Your task to perform on an android device: toggle translation in the chrome app Image 0: 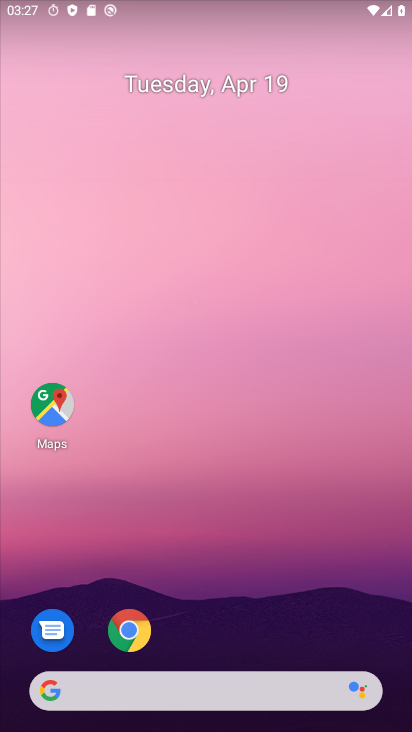
Step 0: click (127, 633)
Your task to perform on an android device: toggle translation in the chrome app Image 1: 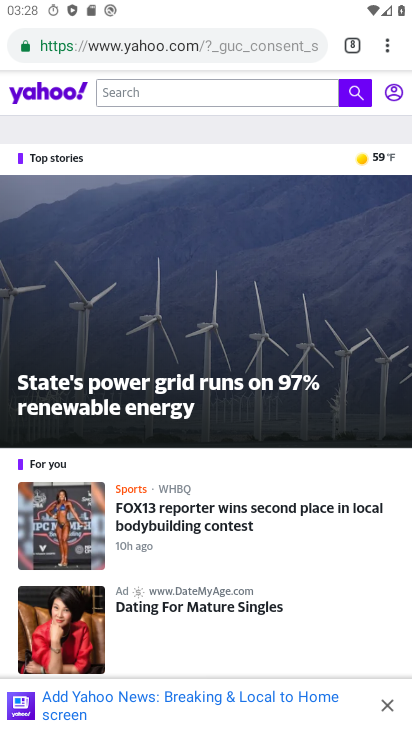
Step 1: click (389, 44)
Your task to perform on an android device: toggle translation in the chrome app Image 2: 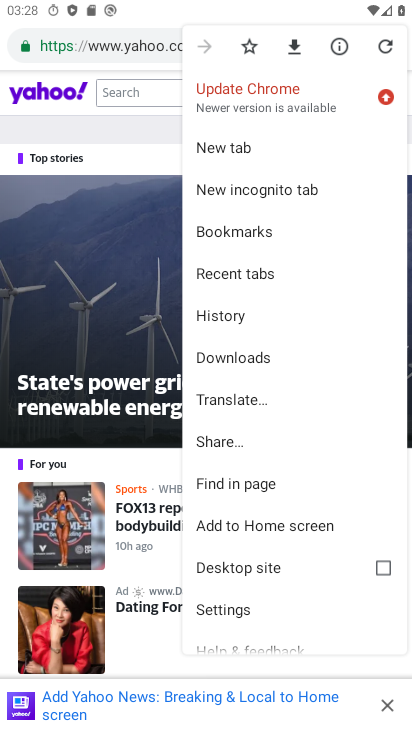
Step 2: click (235, 605)
Your task to perform on an android device: toggle translation in the chrome app Image 3: 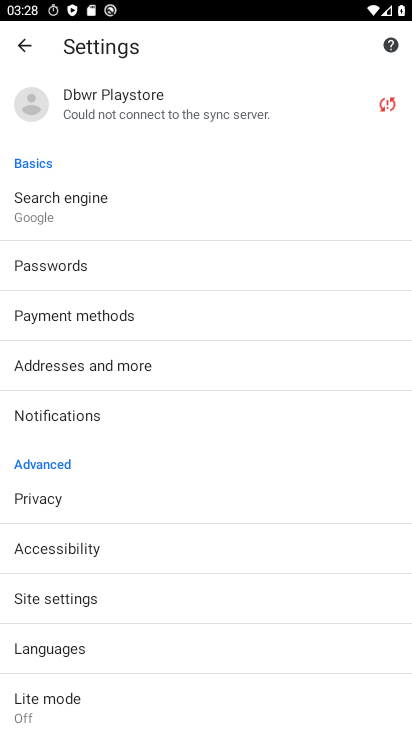
Step 3: click (60, 647)
Your task to perform on an android device: toggle translation in the chrome app Image 4: 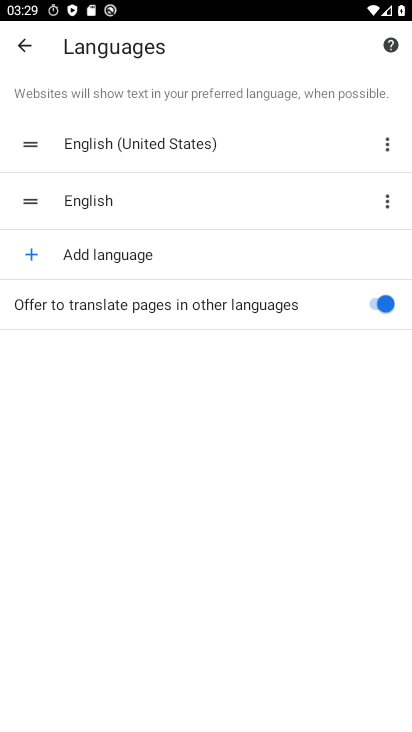
Step 4: click (376, 304)
Your task to perform on an android device: toggle translation in the chrome app Image 5: 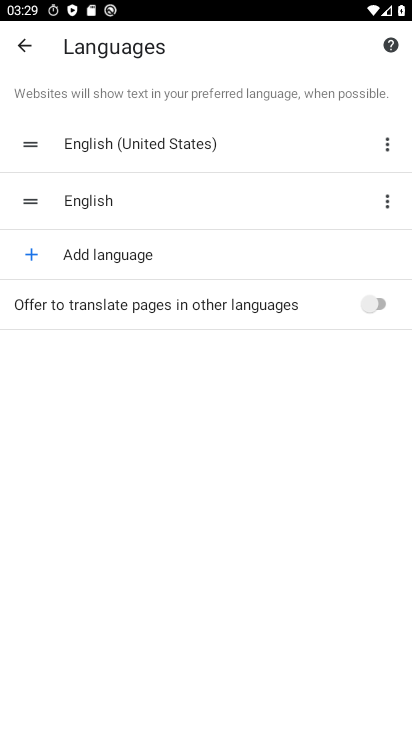
Step 5: task complete